Your task to perform on an android device: Open CNN.com Image 0: 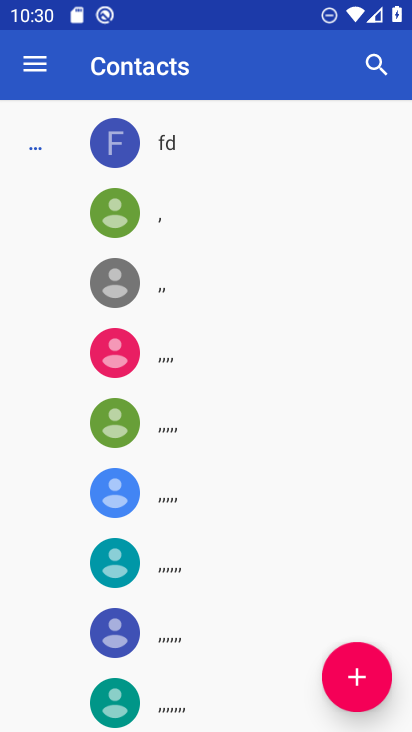
Step 0: press home button
Your task to perform on an android device: Open CNN.com Image 1: 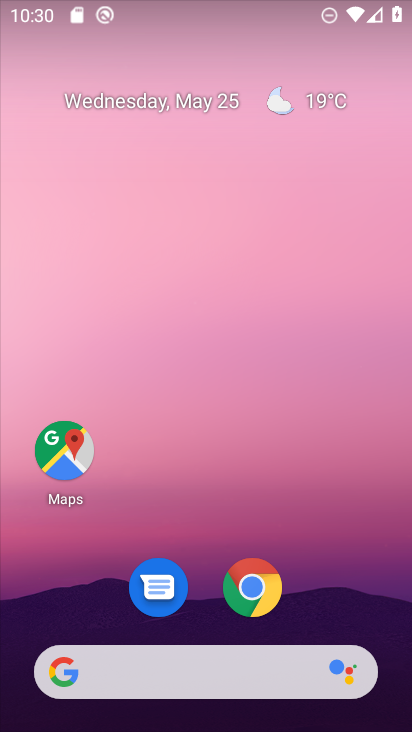
Step 1: click (254, 591)
Your task to perform on an android device: Open CNN.com Image 2: 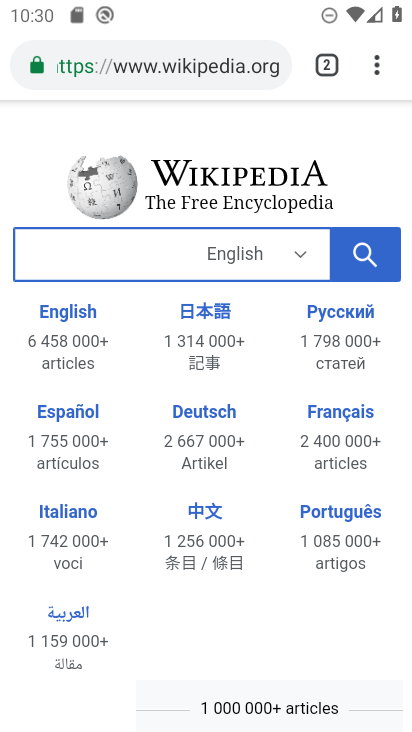
Step 2: click (254, 60)
Your task to perform on an android device: Open CNN.com Image 3: 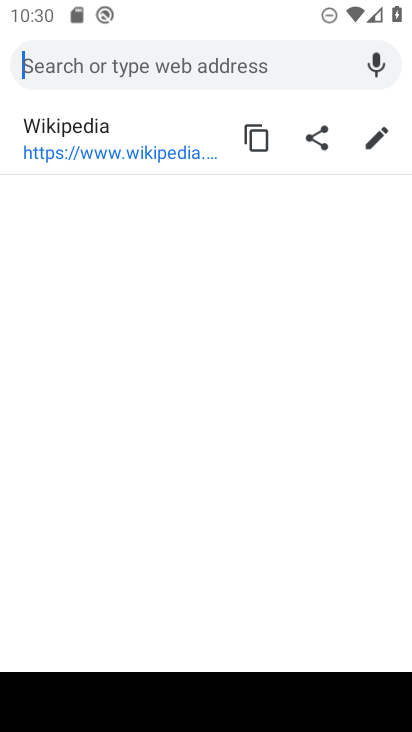
Step 3: type "cnn.com"
Your task to perform on an android device: Open CNN.com Image 4: 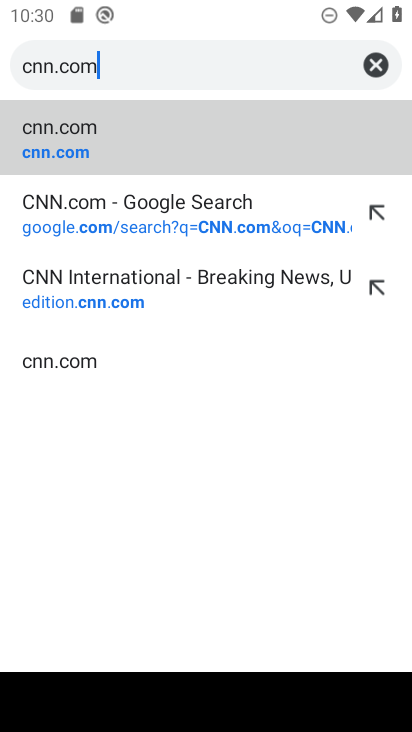
Step 4: click (79, 142)
Your task to perform on an android device: Open CNN.com Image 5: 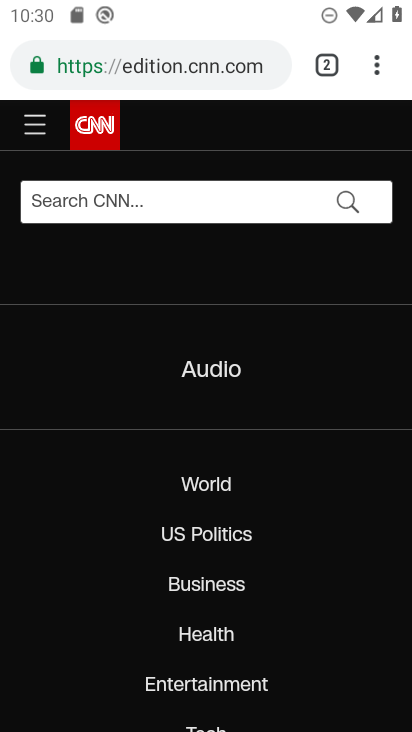
Step 5: task complete